Your task to perform on an android device: turn off improve location accuracy Image 0: 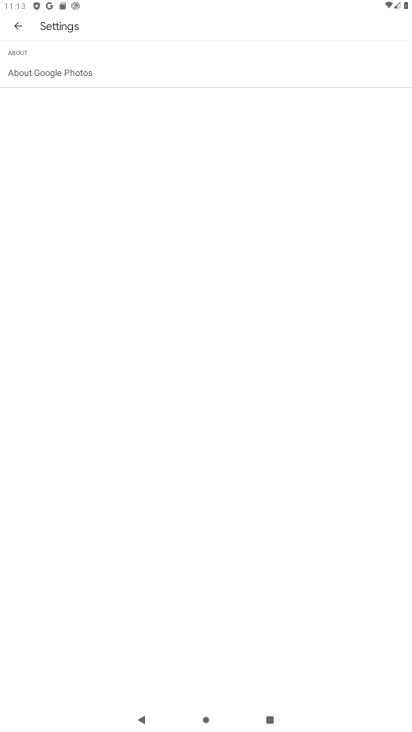
Step 0: press home button
Your task to perform on an android device: turn off improve location accuracy Image 1: 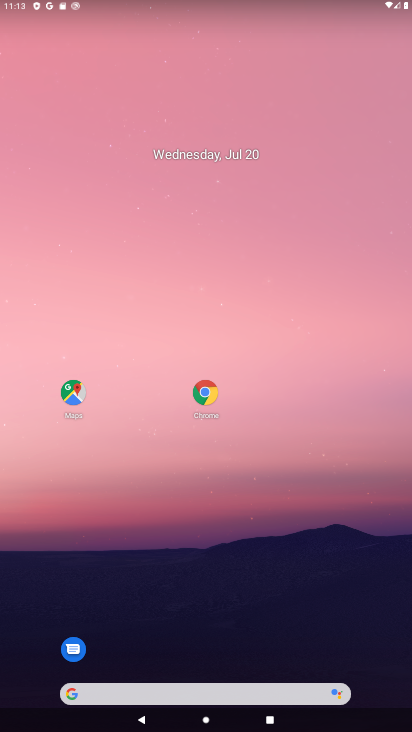
Step 1: drag from (194, 636) to (194, 204)
Your task to perform on an android device: turn off improve location accuracy Image 2: 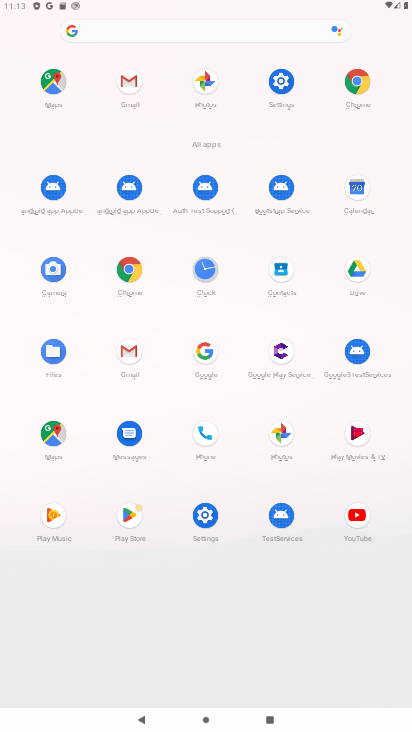
Step 2: click (277, 74)
Your task to perform on an android device: turn off improve location accuracy Image 3: 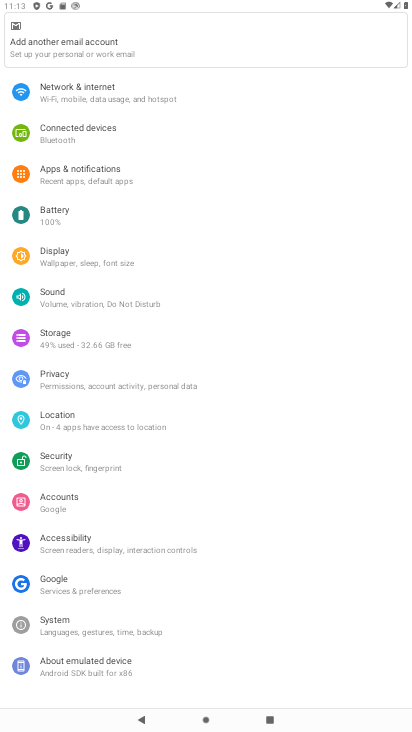
Step 3: click (90, 411)
Your task to perform on an android device: turn off improve location accuracy Image 4: 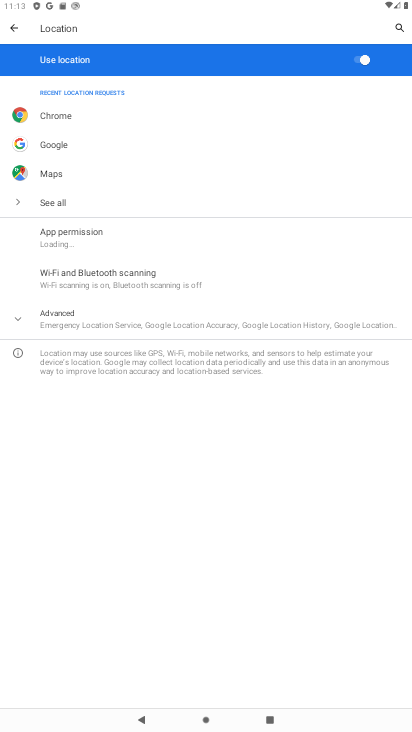
Step 4: click (97, 300)
Your task to perform on an android device: turn off improve location accuracy Image 5: 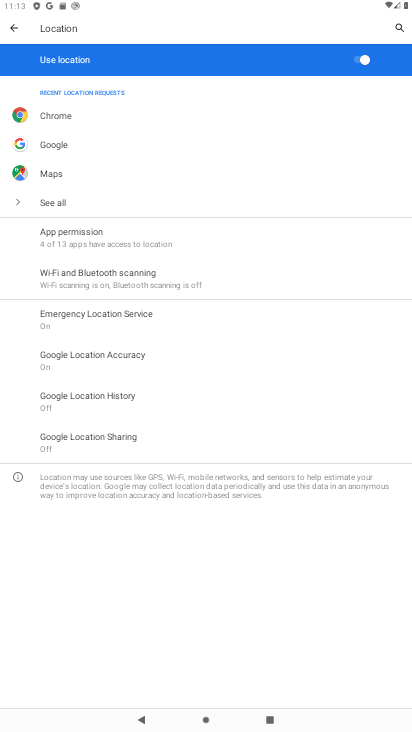
Step 5: click (117, 359)
Your task to perform on an android device: turn off improve location accuracy Image 6: 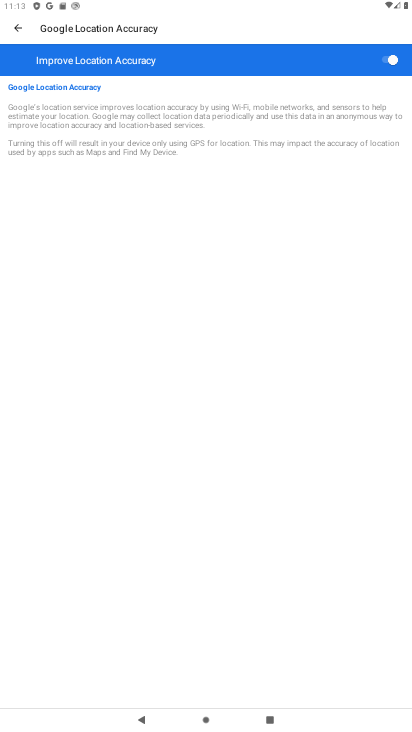
Step 6: click (390, 55)
Your task to perform on an android device: turn off improve location accuracy Image 7: 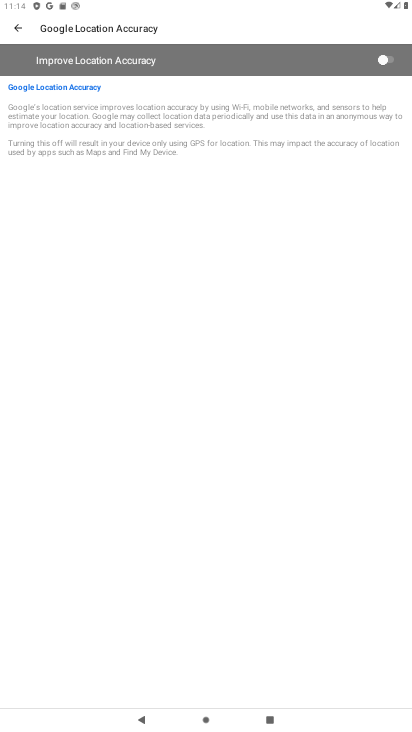
Step 7: task complete